Your task to perform on an android device: check battery use Image 0: 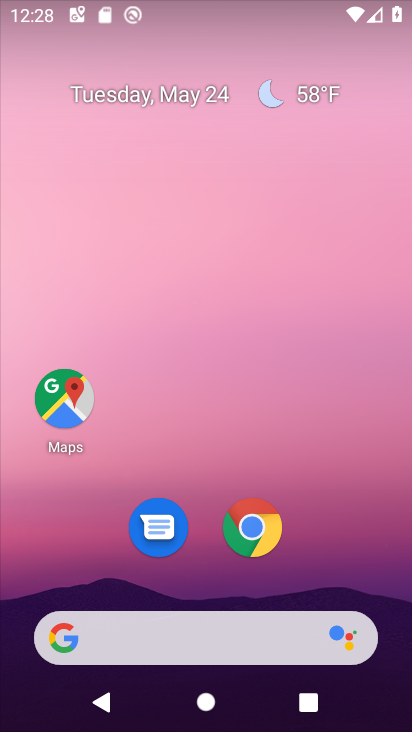
Step 0: drag from (379, 567) to (261, 94)
Your task to perform on an android device: check battery use Image 1: 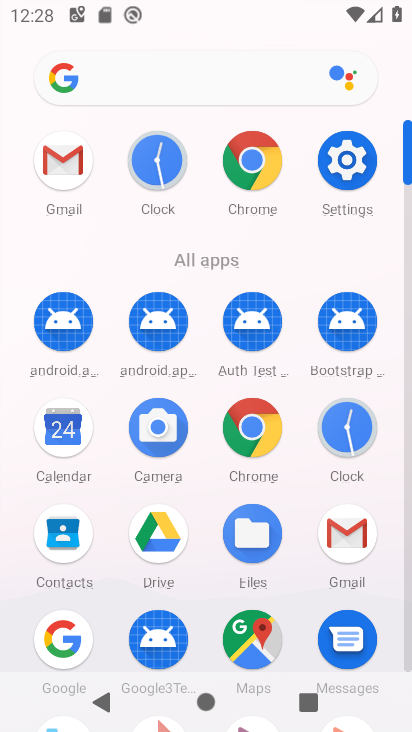
Step 1: click (349, 175)
Your task to perform on an android device: check battery use Image 2: 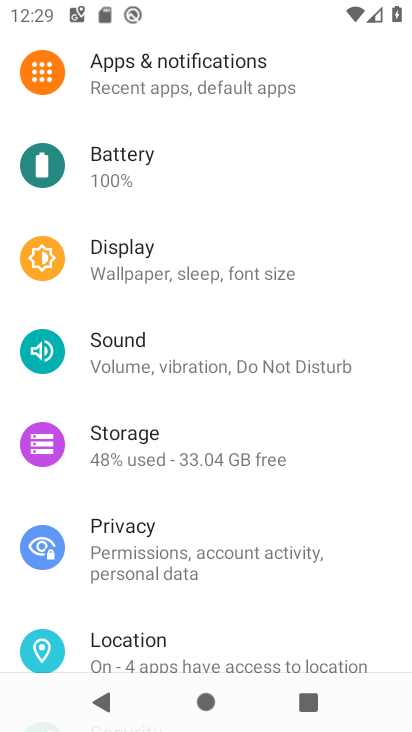
Step 2: click (213, 162)
Your task to perform on an android device: check battery use Image 3: 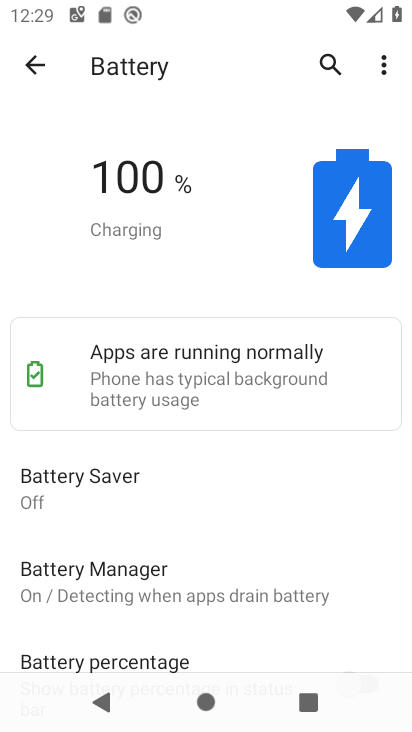
Step 3: task complete